Your task to perform on an android device: open a new tab in the chrome app Image 0: 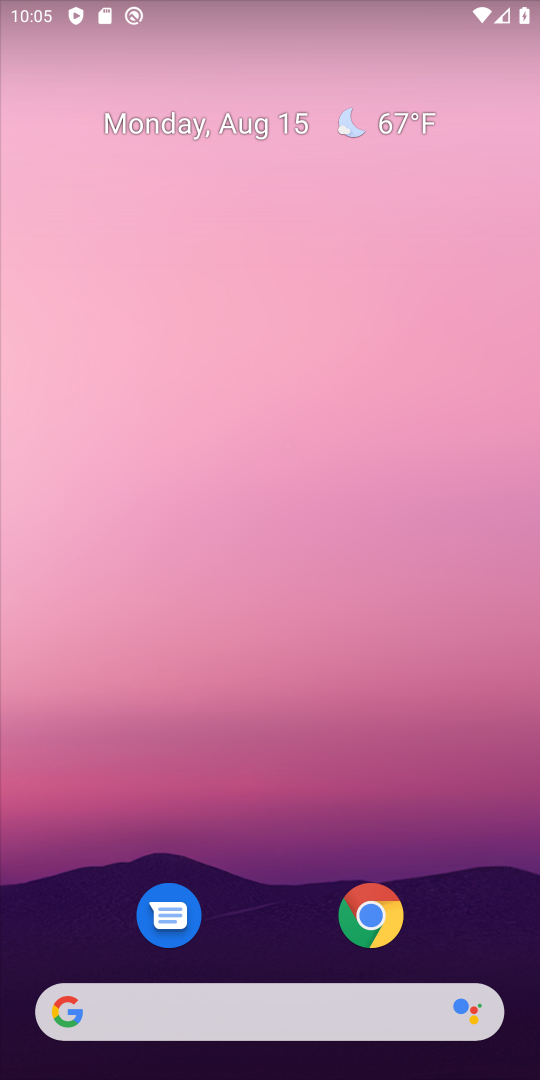
Step 0: click (366, 921)
Your task to perform on an android device: open a new tab in the chrome app Image 1: 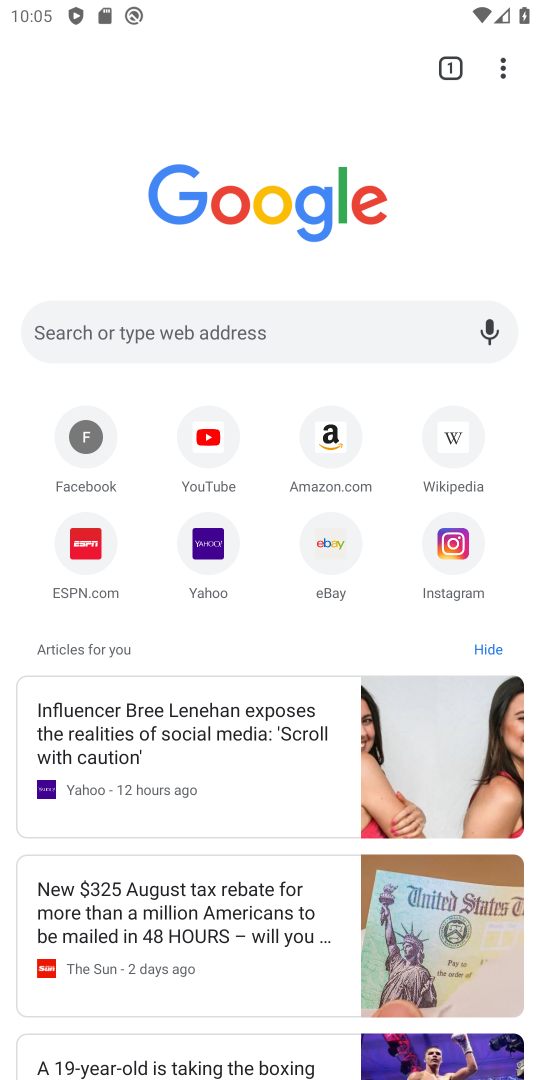
Step 1: click (445, 56)
Your task to perform on an android device: open a new tab in the chrome app Image 2: 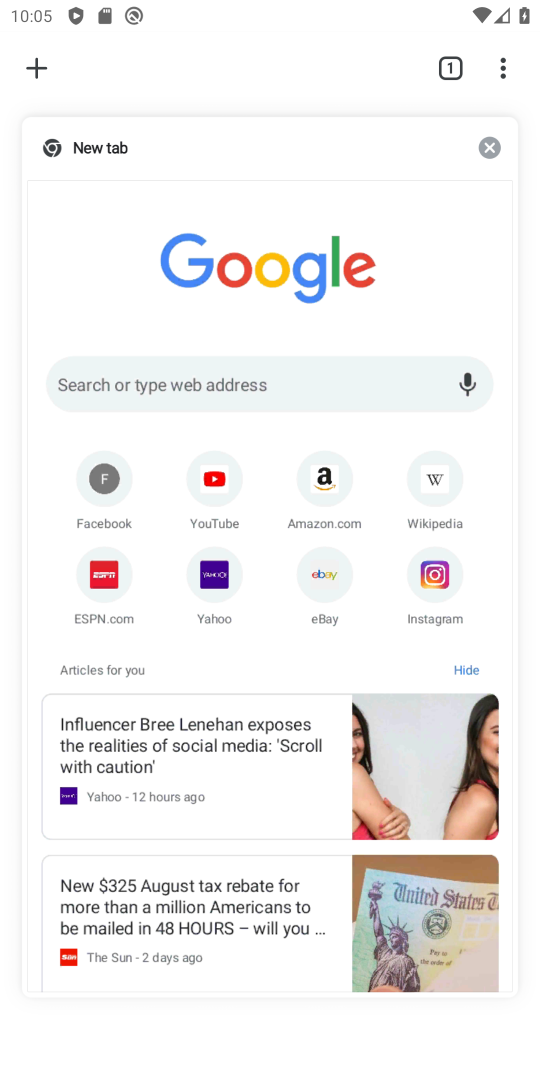
Step 2: click (37, 68)
Your task to perform on an android device: open a new tab in the chrome app Image 3: 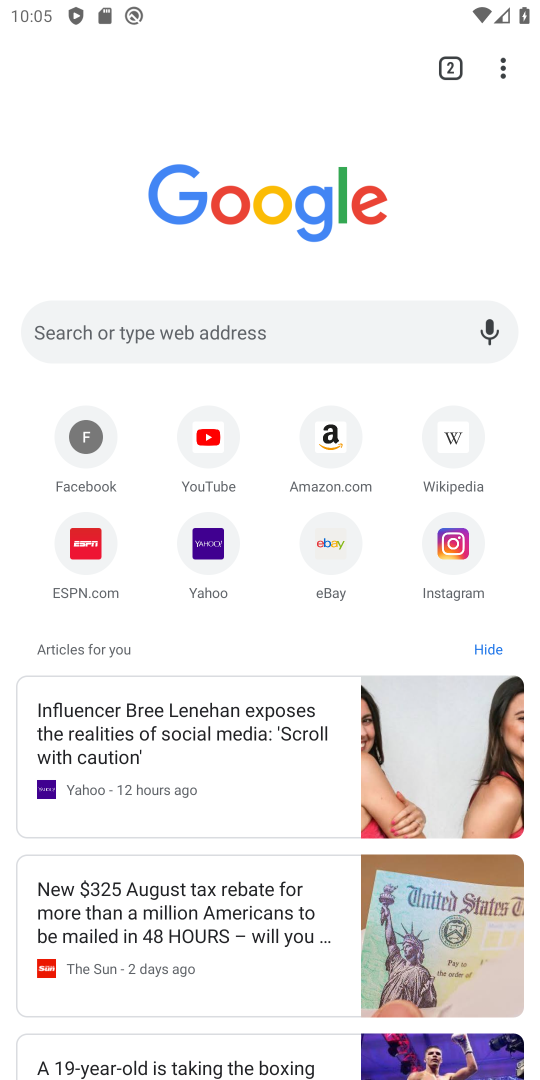
Step 3: task complete